Your task to perform on an android device: Open Chrome and go to settings Image 0: 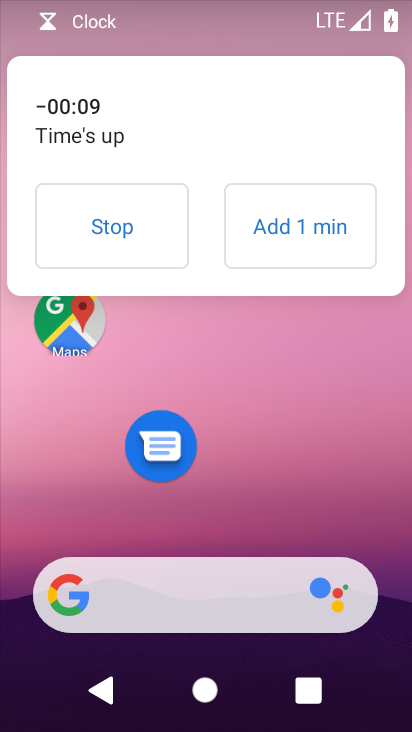
Step 0: click (146, 239)
Your task to perform on an android device: Open Chrome and go to settings Image 1: 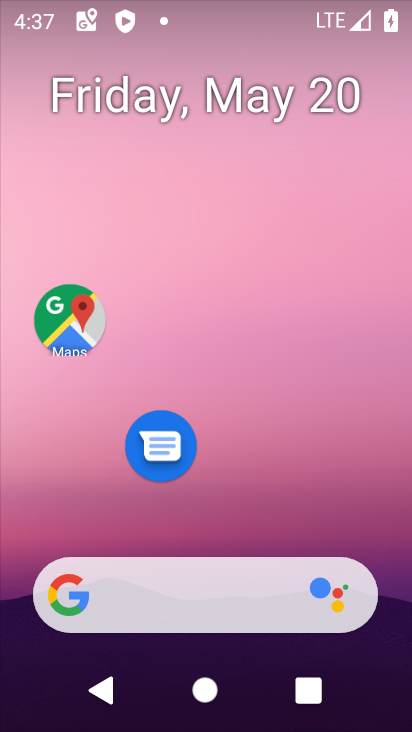
Step 1: drag from (277, 515) to (289, 91)
Your task to perform on an android device: Open Chrome and go to settings Image 2: 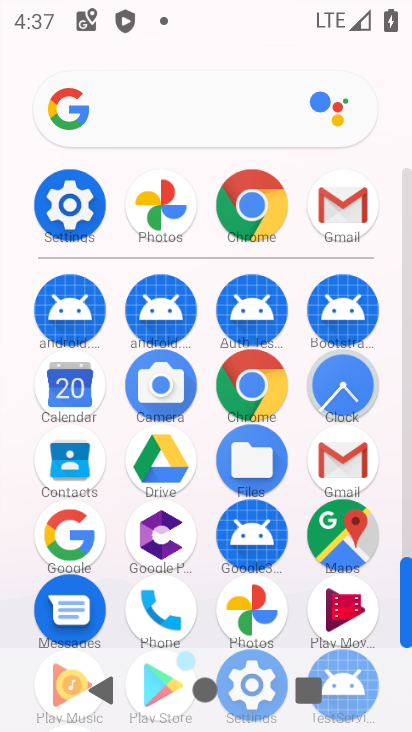
Step 2: click (261, 218)
Your task to perform on an android device: Open Chrome and go to settings Image 3: 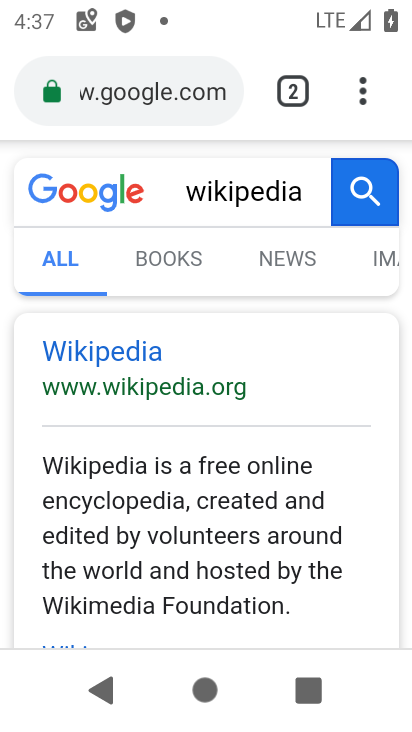
Step 3: click (358, 111)
Your task to perform on an android device: Open Chrome and go to settings Image 4: 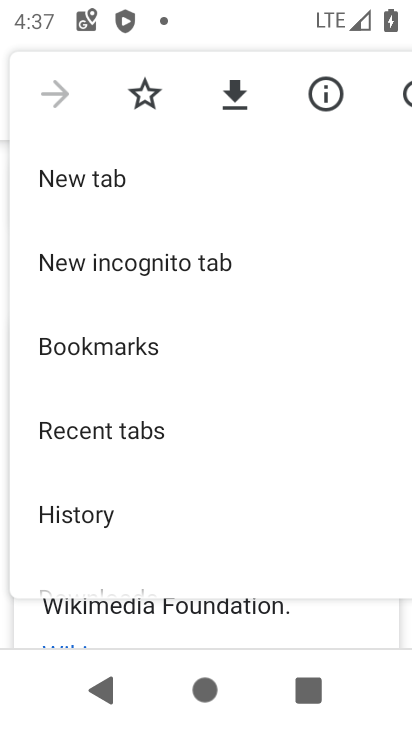
Step 4: drag from (185, 539) to (186, 253)
Your task to perform on an android device: Open Chrome and go to settings Image 5: 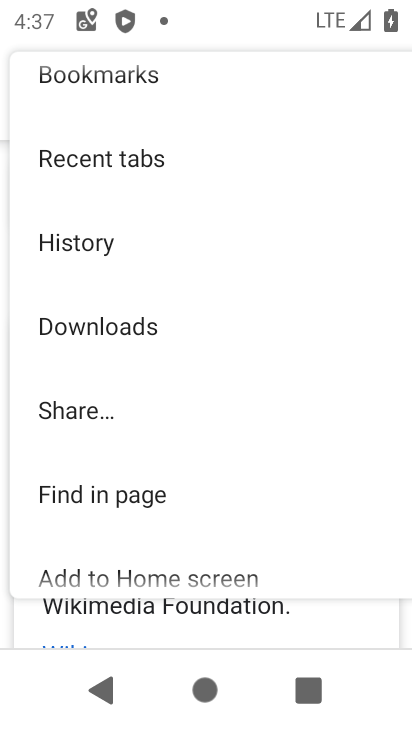
Step 5: drag from (135, 481) to (147, 221)
Your task to perform on an android device: Open Chrome and go to settings Image 6: 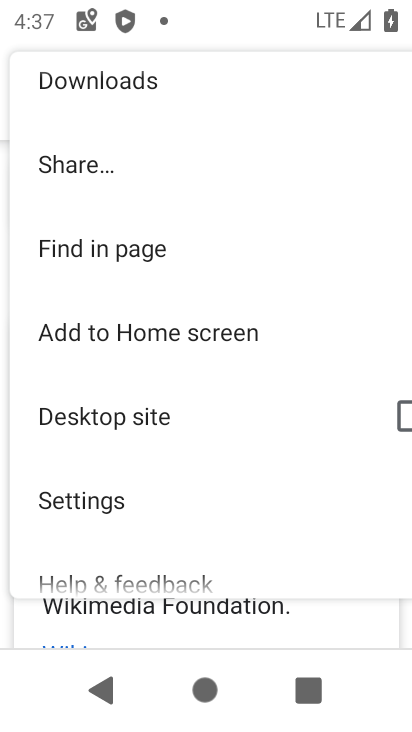
Step 6: drag from (147, 524) to (197, 276)
Your task to perform on an android device: Open Chrome and go to settings Image 7: 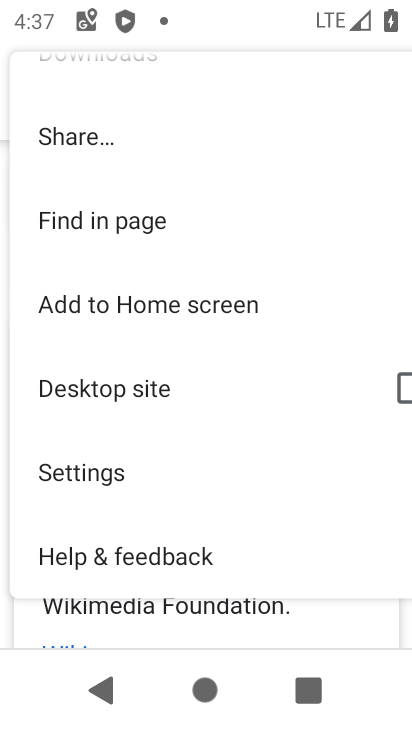
Step 7: click (122, 474)
Your task to perform on an android device: Open Chrome and go to settings Image 8: 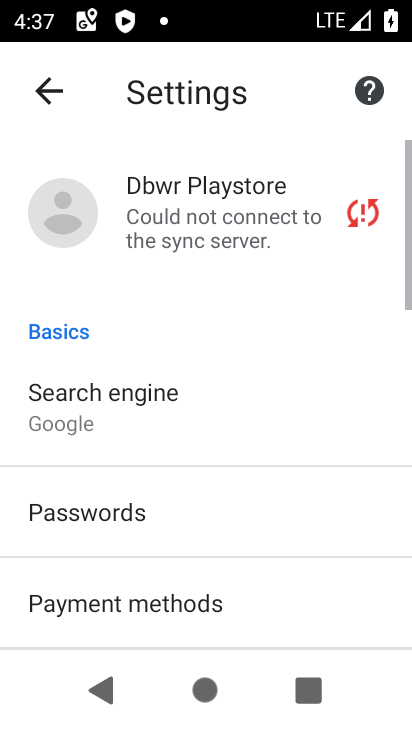
Step 8: task complete